Your task to perform on an android device: check google app version Image 0: 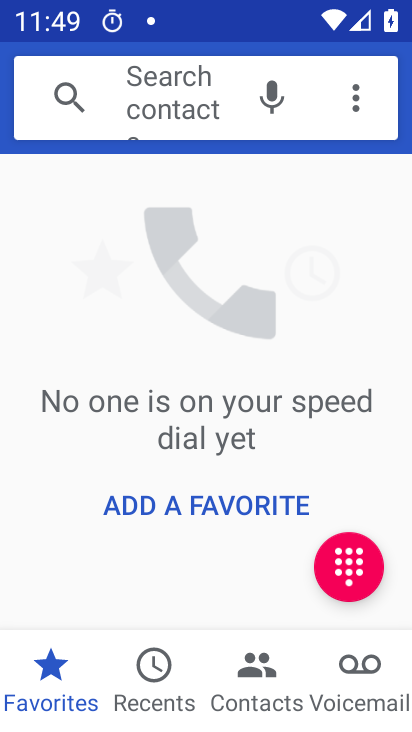
Step 0: press home button
Your task to perform on an android device: check google app version Image 1: 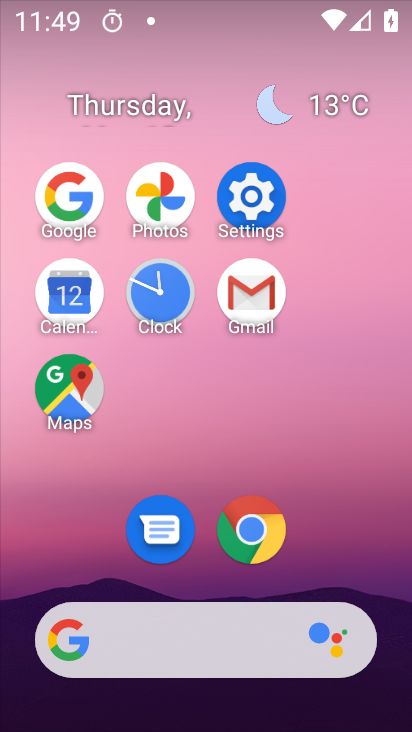
Step 1: click (65, 180)
Your task to perform on an android device: check google app version Image 2: 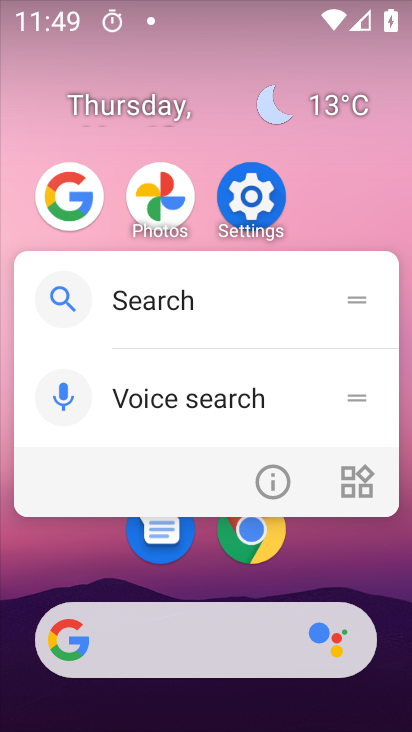
Step 2: click (276, 488)
Your task to perform on an android device: check google app version Image 3: 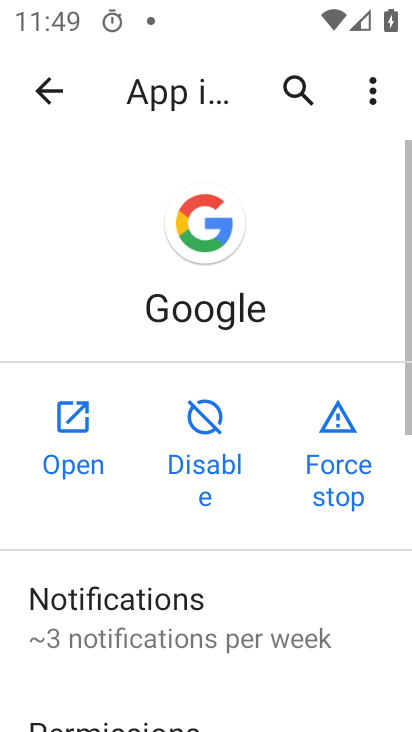
Step 3: drag from (262, 613) to (260, 223)
Your task to perform on an android device: check google app version Image 4: 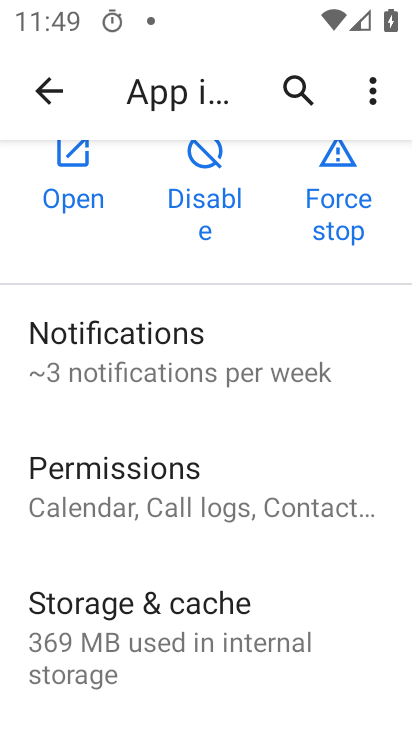
Step 4: drag from (253, 613) to (269, 181)
Your task to perform on an android device: check google app version Image 5: 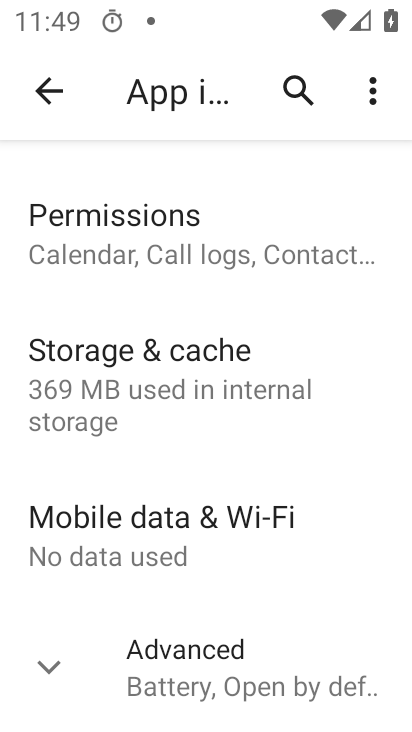
Step 5: click (197, 680)
Your task to perform on an android device: check google app version Image 6: 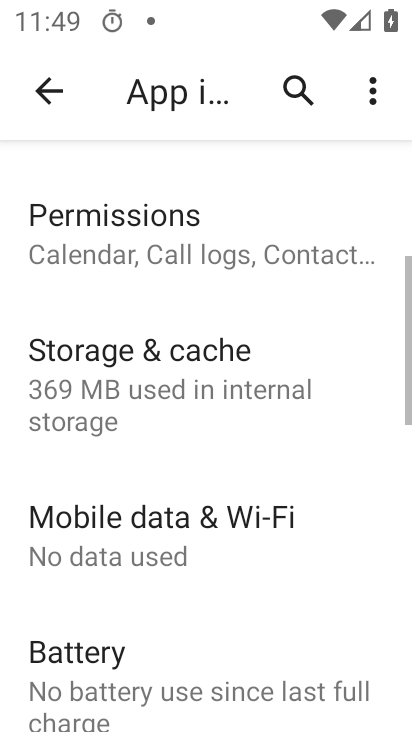
Step 6: task complete